Your task to perform on an android device: Clear all items from cart on newegg. Search for usb-c to usb-b on newegg, select the first entry, and add it to the cart. Image 0: 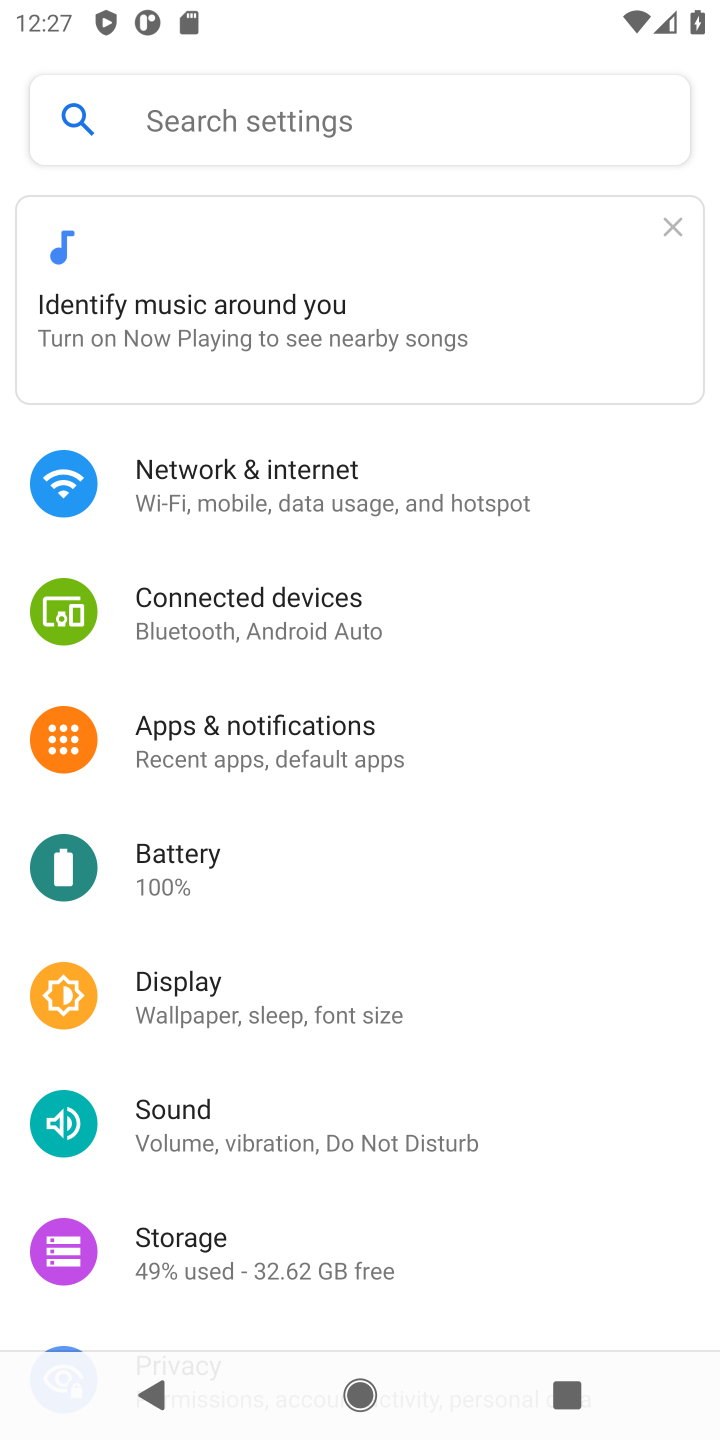
Step 0: press home button
Your task to perform on an android device: Clear all items from cart on newegg. Search for usb-c to usb-b on newegg, select the first entry, and add it to the cart. Image 1: 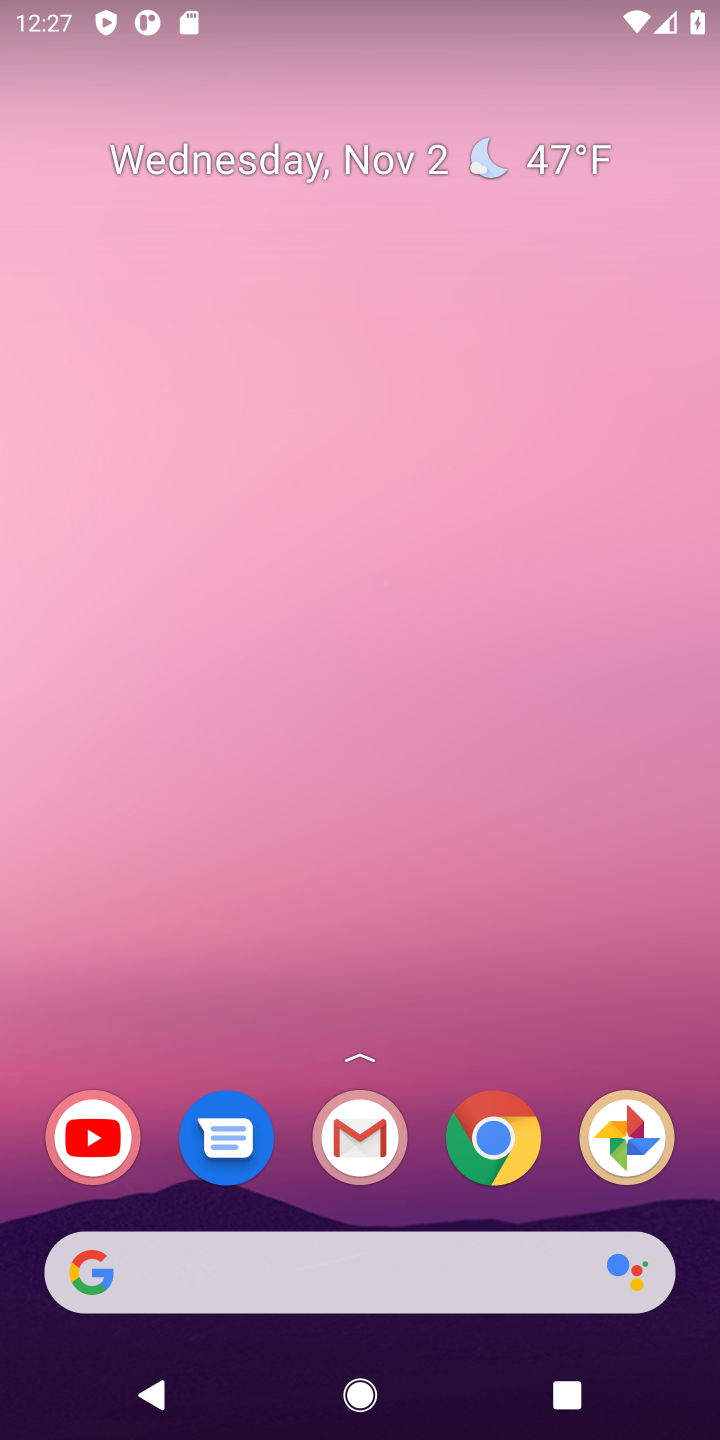
Step 1: drag from (458, 1350) to (423, 131)
Your task to perform on an android device: Clear all items from cart on newegg. Search for usb-c to usb-b on newegg, select the first entry, and add it to the cart. Image 2: 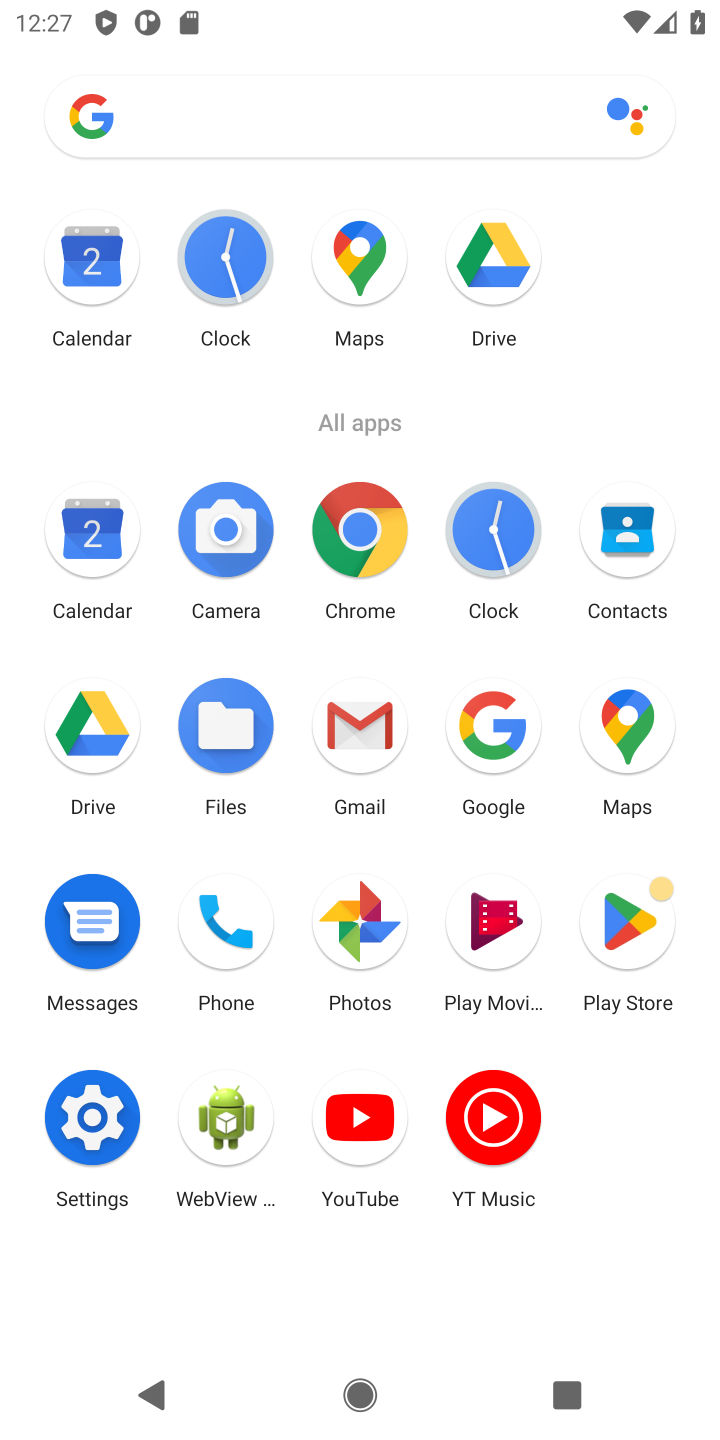
Step 2: click (375, 537)
Your task to perform on an android device: Clear all items from cart on newegg. Search for usb-c to usb-b on newegg, select the first entry, and add it to the cart. Image 3: 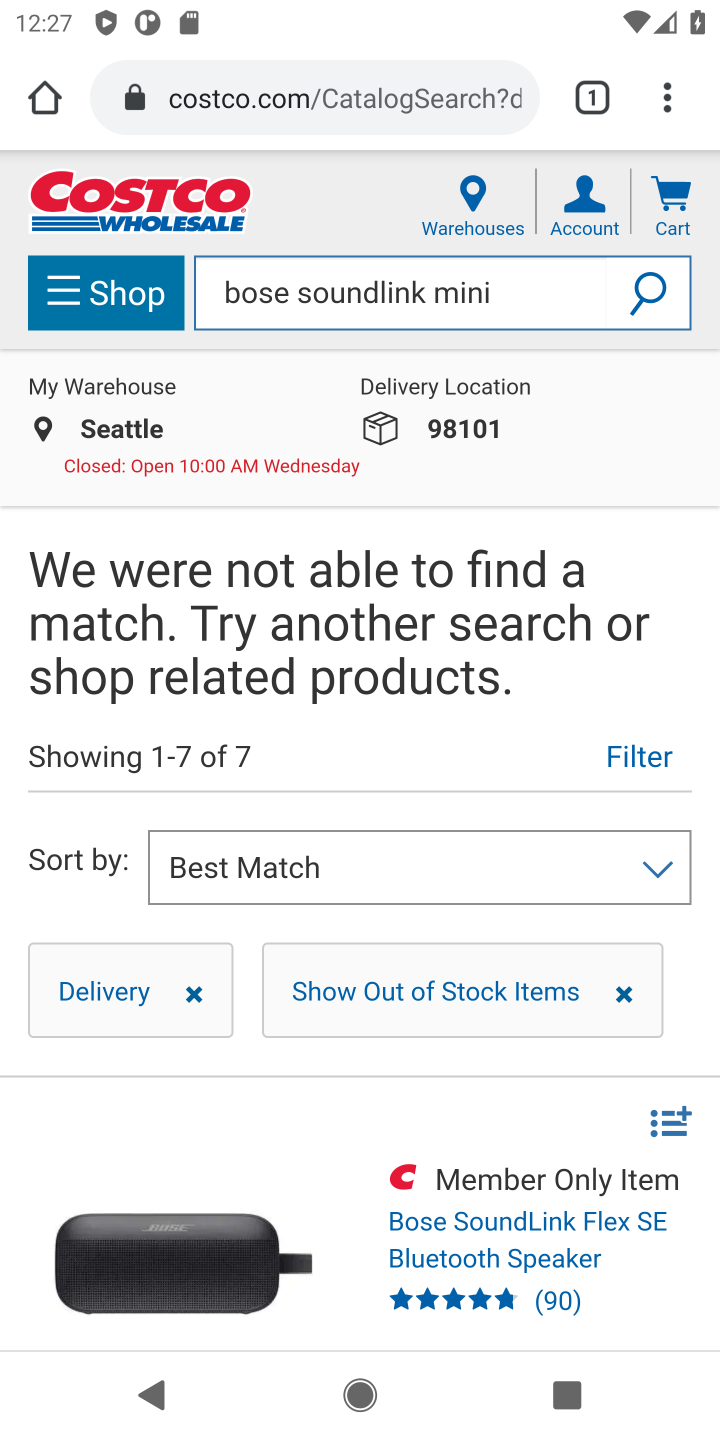
Step 3: click (326, 101)
Your task to perform on an android device: Clear all items from cart on newegg. Search for usb-c to usb-b on newegg, select the first entry, and add it to the cart. Image 4: 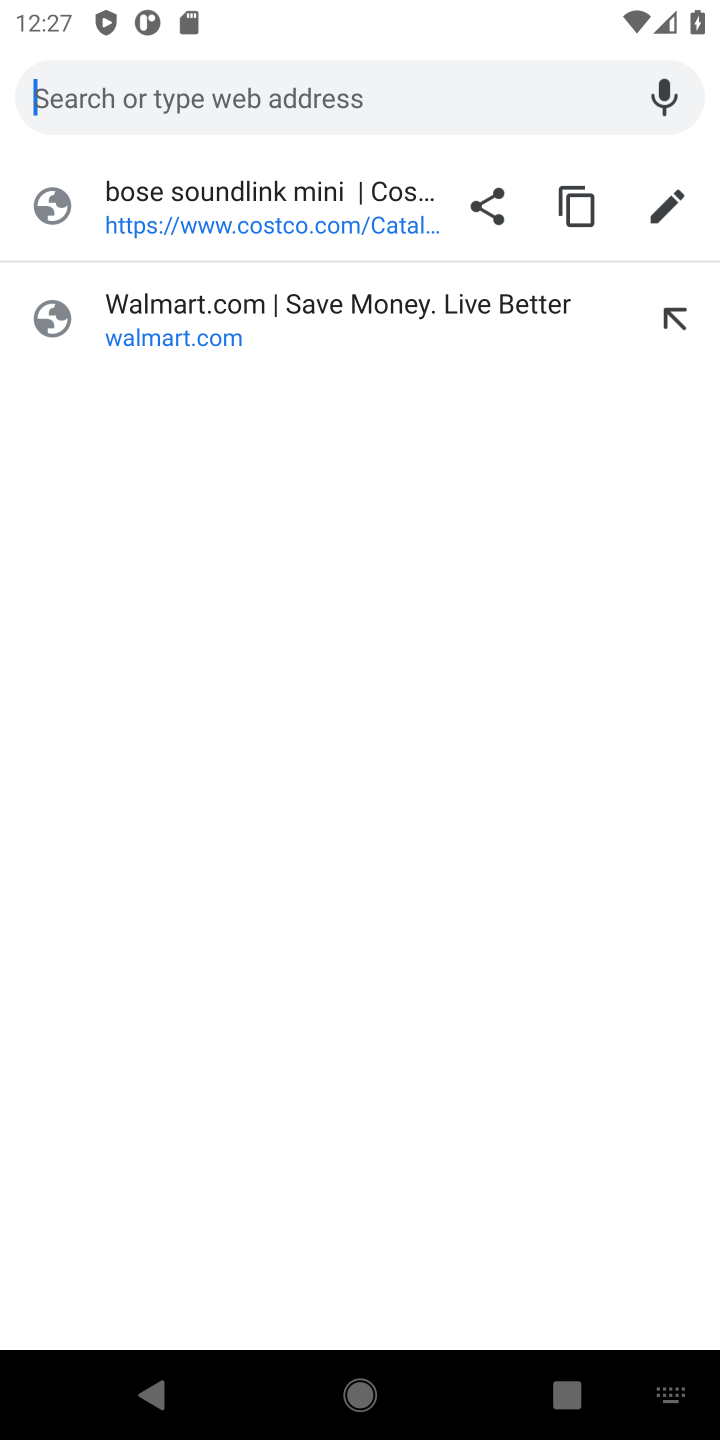
Step 4: type "newegg"
Your task to perform on an android device: Clear all items from cart on newegg. Search for usb-c to usb-b on newegg, select the first entry, and add it to the cart. Image 5: 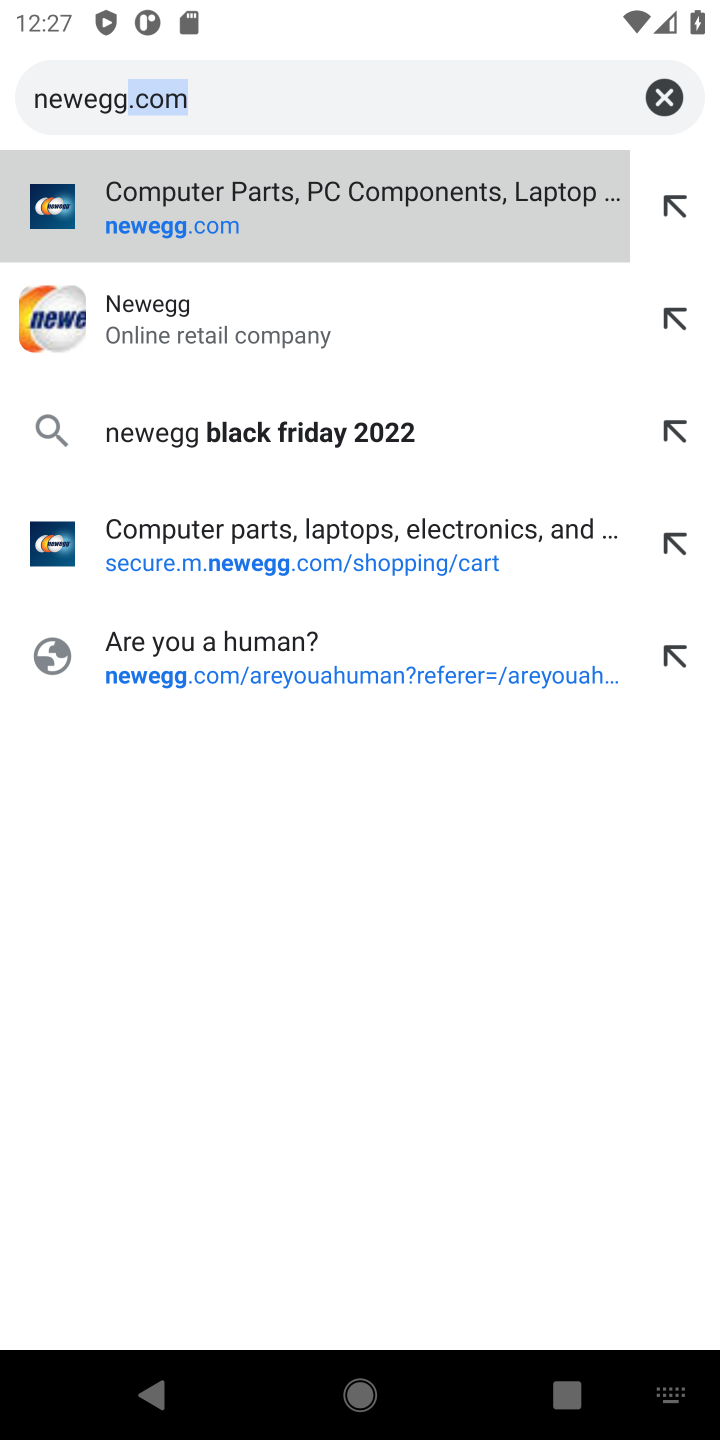
Step 5: click (131, 222)
Your task to perform on an android device: Clear all items from cart on newegg. Search for usb-c to usb-b on newegg, select the first entry, and add it to the cart. Image 6: 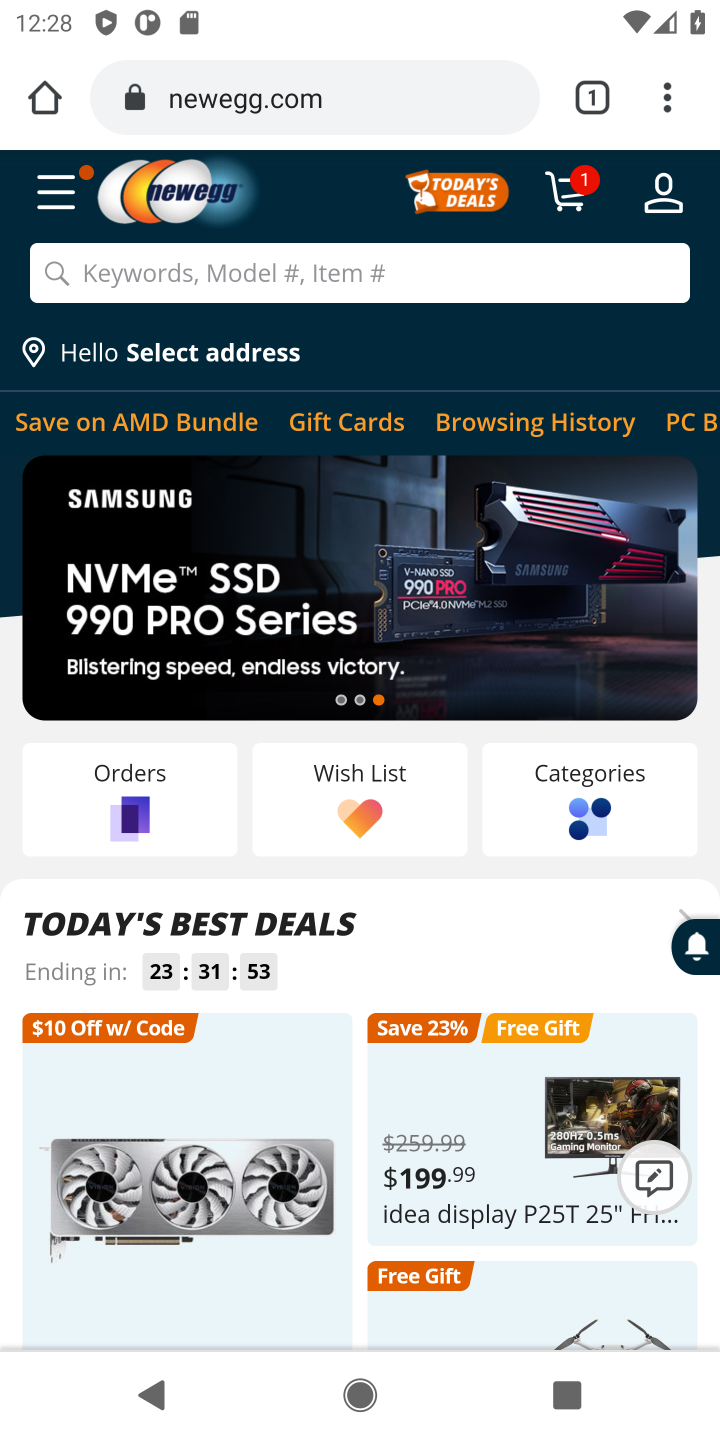
Step 6: click (322, 255)
Your task to perform on an android device: Clear all items from cart on newegg. Search for usb-c to usb-b on newegg, select the first entry, and add it to the cart. Image 7: 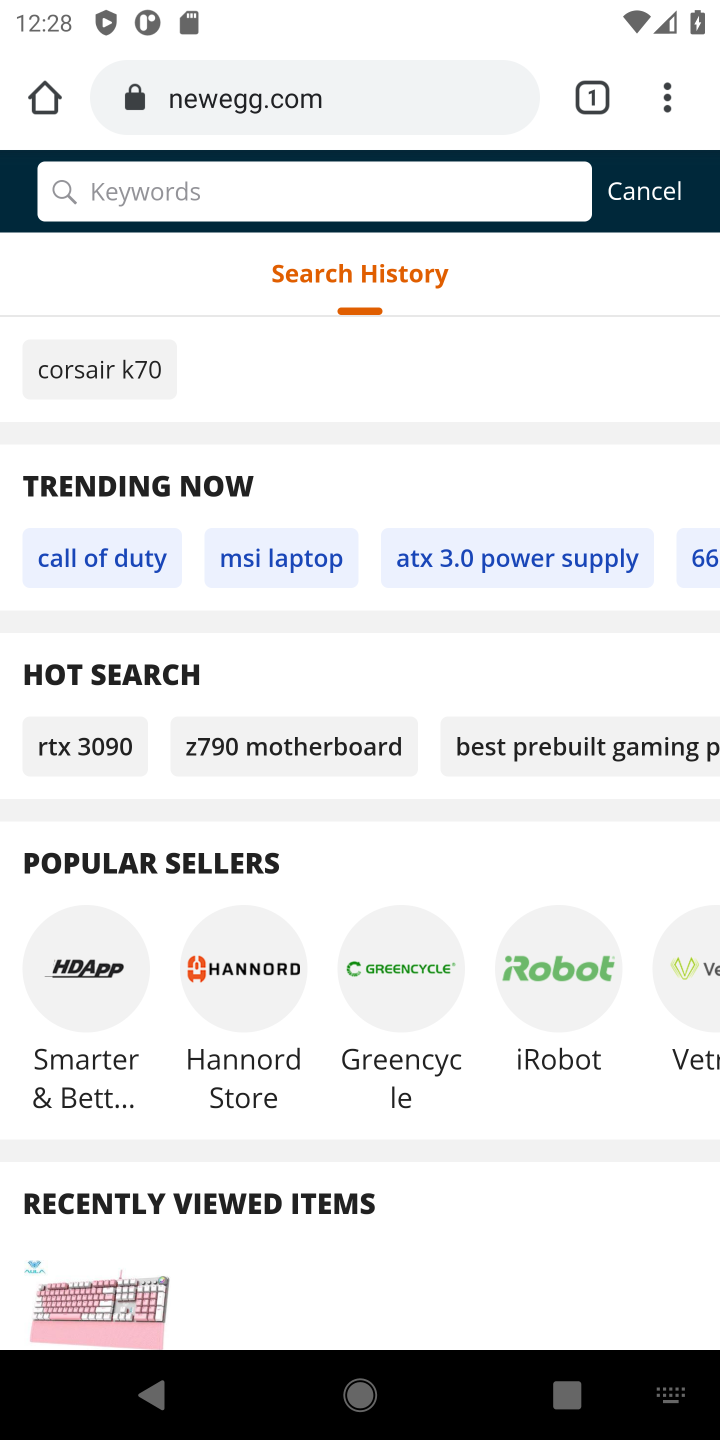
Step 7: click (619, 198)
Your task to perform on an android device: Clear all items from cart on newegg. Search for usb-c to usb-b on newegg, select the first entry, and add it to the cart. Image 8: 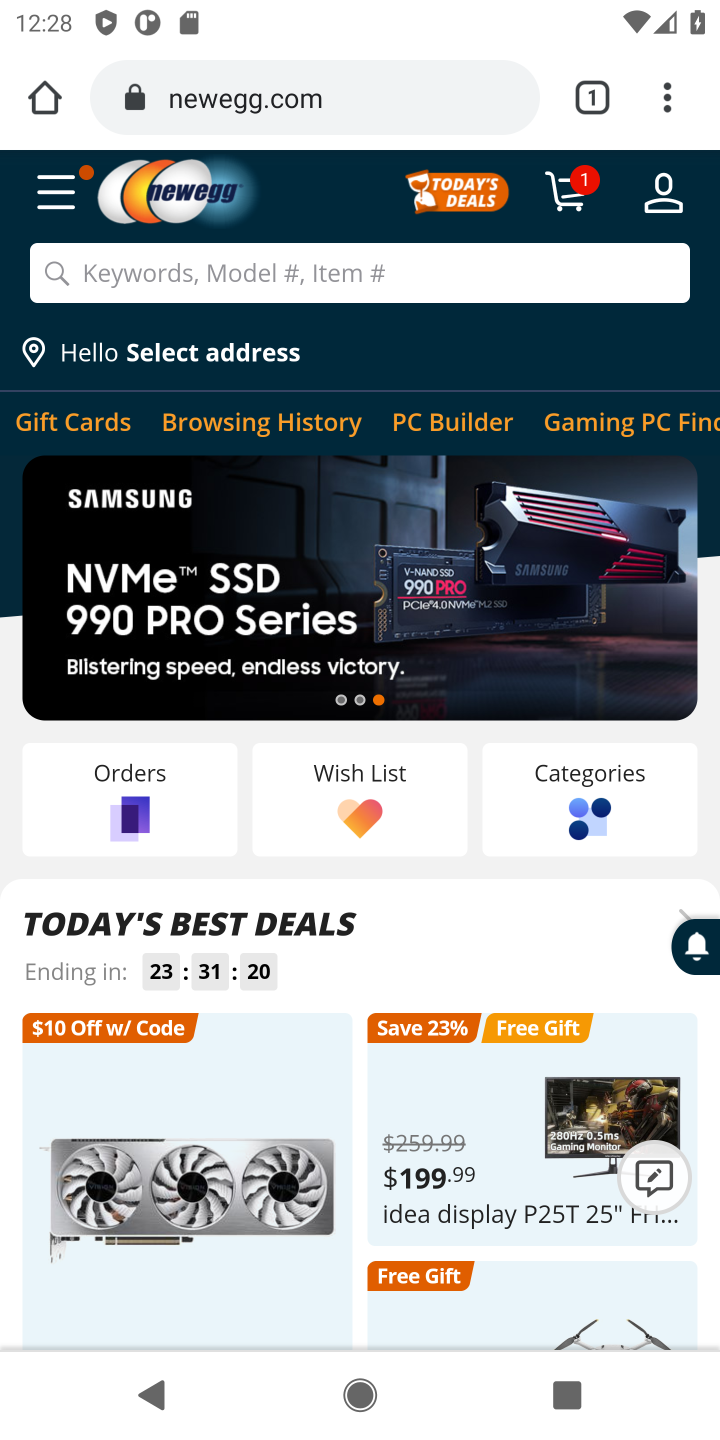
Step 8: click (581, 196)
Your task to perform on an android device: Clear all items from cart on newegg. Search for usb-c to usb-b on newegg, select the first entry, and add it to the cart. Image 9: 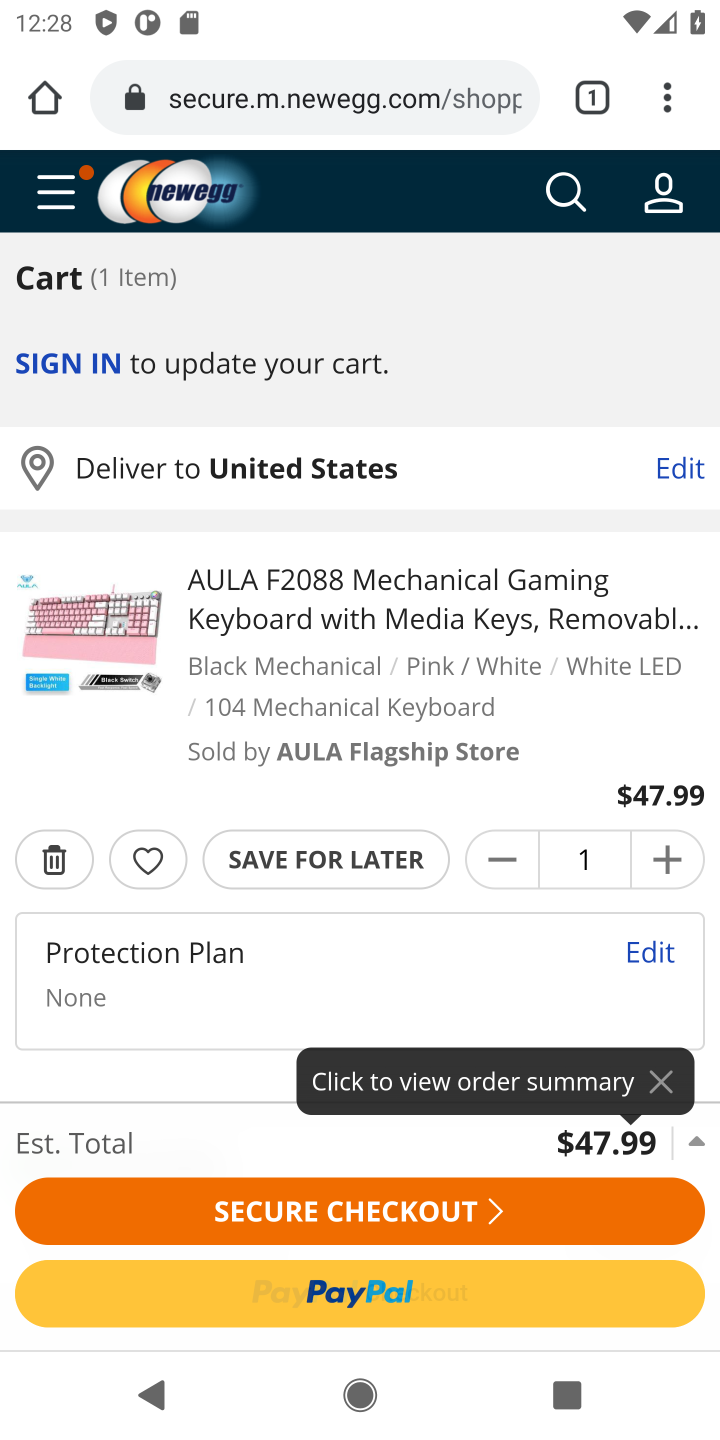
Step 9: drag from (470, 1140) to (505, 400)
Your task to perform on an android device: Clear all items from cart on newegg. Search for usb-c to usb-b on newegg, select the first entry, and add it to the cart. Image 10: 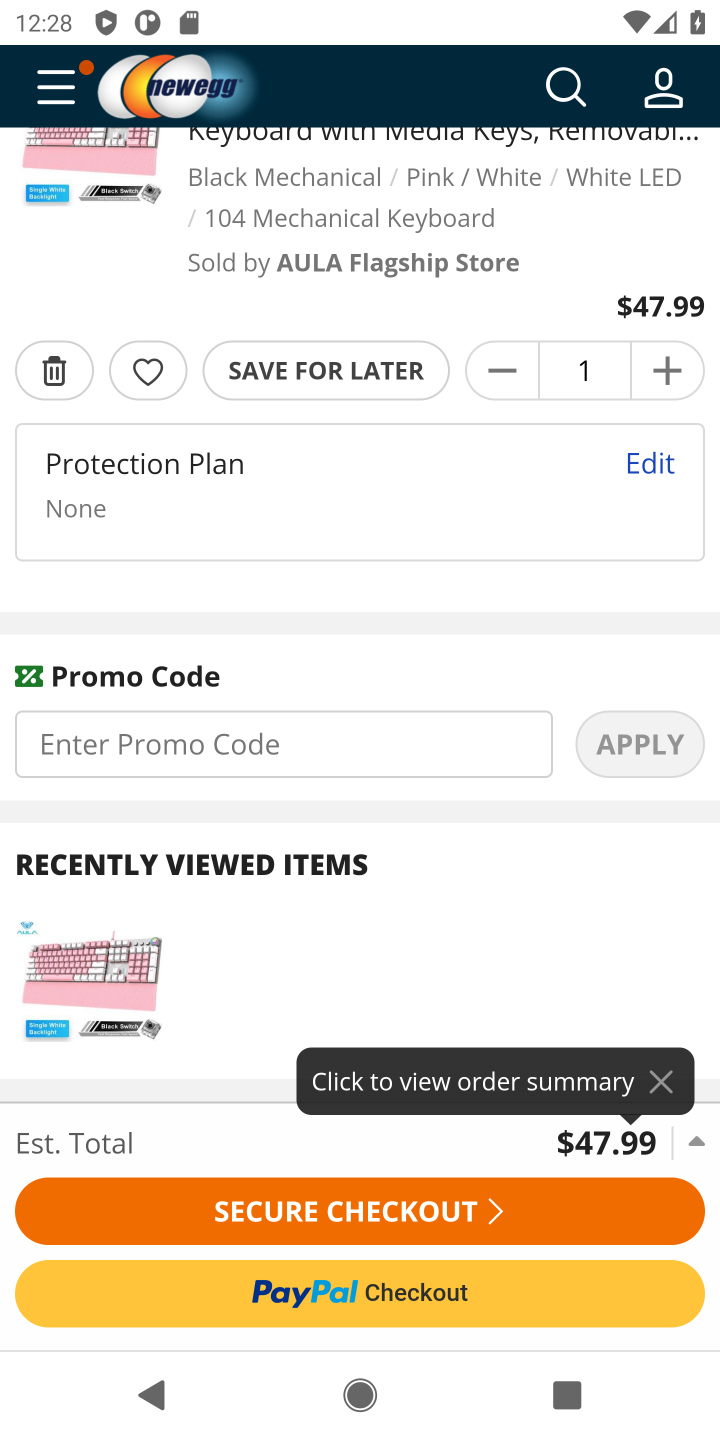
Step 10: drag from (550, 893) to (535, 449)
Your task to perform on an android device: Clear all items from cart on newegg. Search for usb-c to usb-b on newegg, select the first entry, and add it to the cart. Image 11: 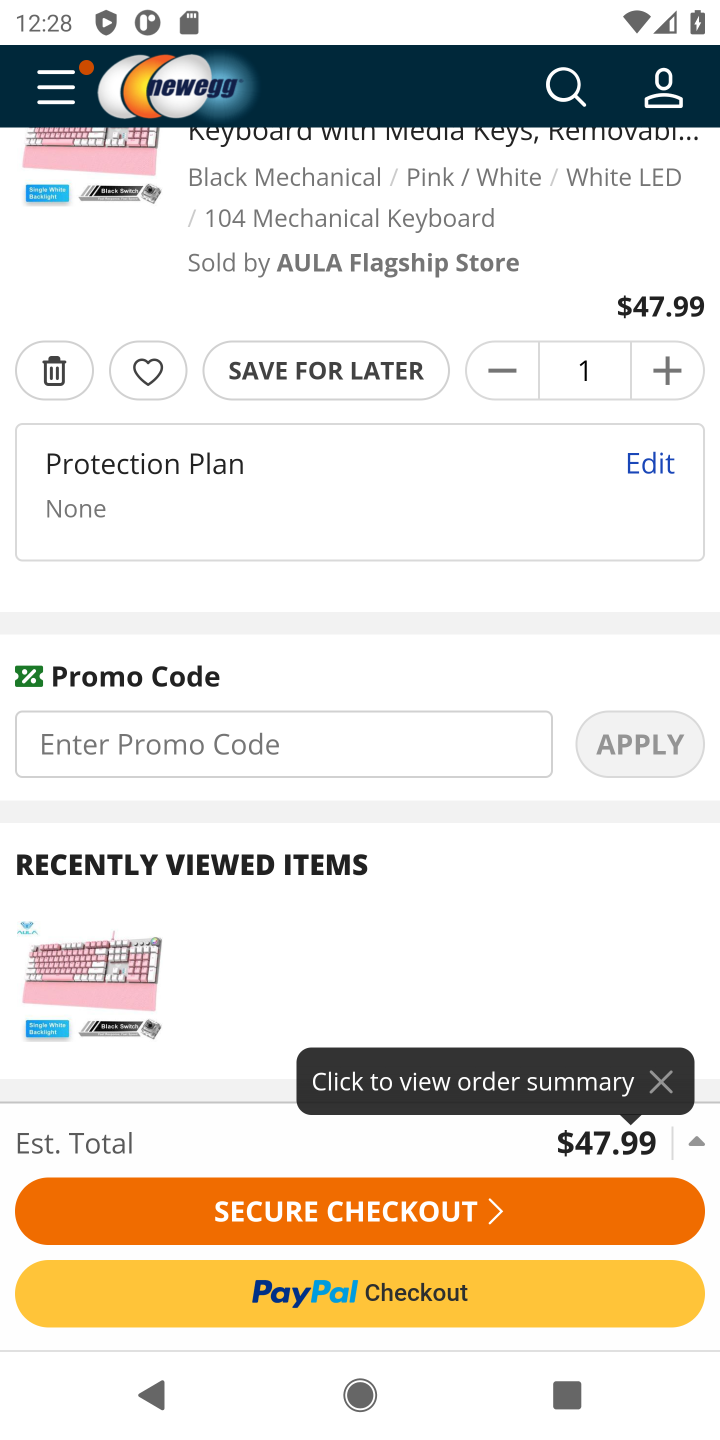
Step 11: click (51, 369)
Your task to perform on an android device: Clear all items from cart on newegg. Search for usb-c to usb-b on newegg, select the first entry, and add it to the cart. Image 12: 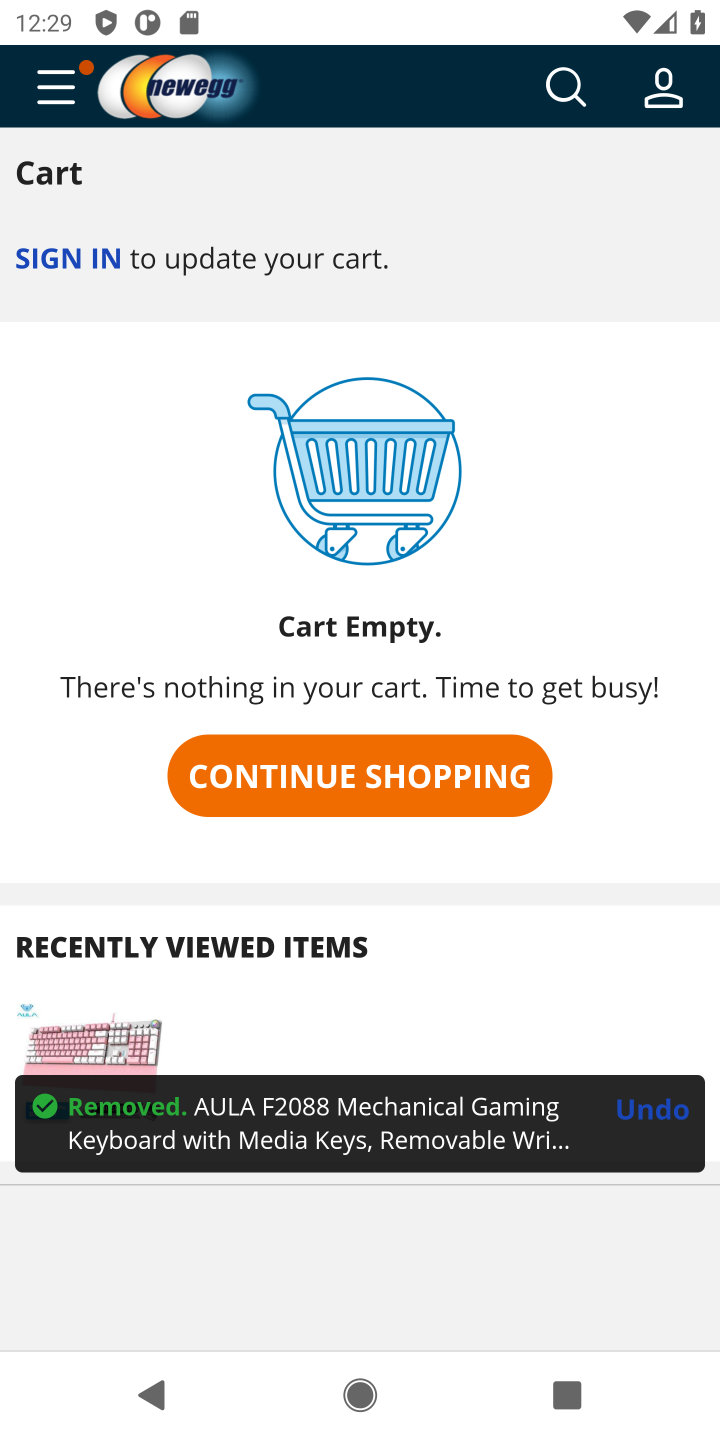
Step 12: drag from (551, 923) to (562, 445)
Your task to perform on an android device: Clear all items from cart on newegg. Search for usb-c to usb-b on newegg, select the first entry, and add it to the cart. Image 13: 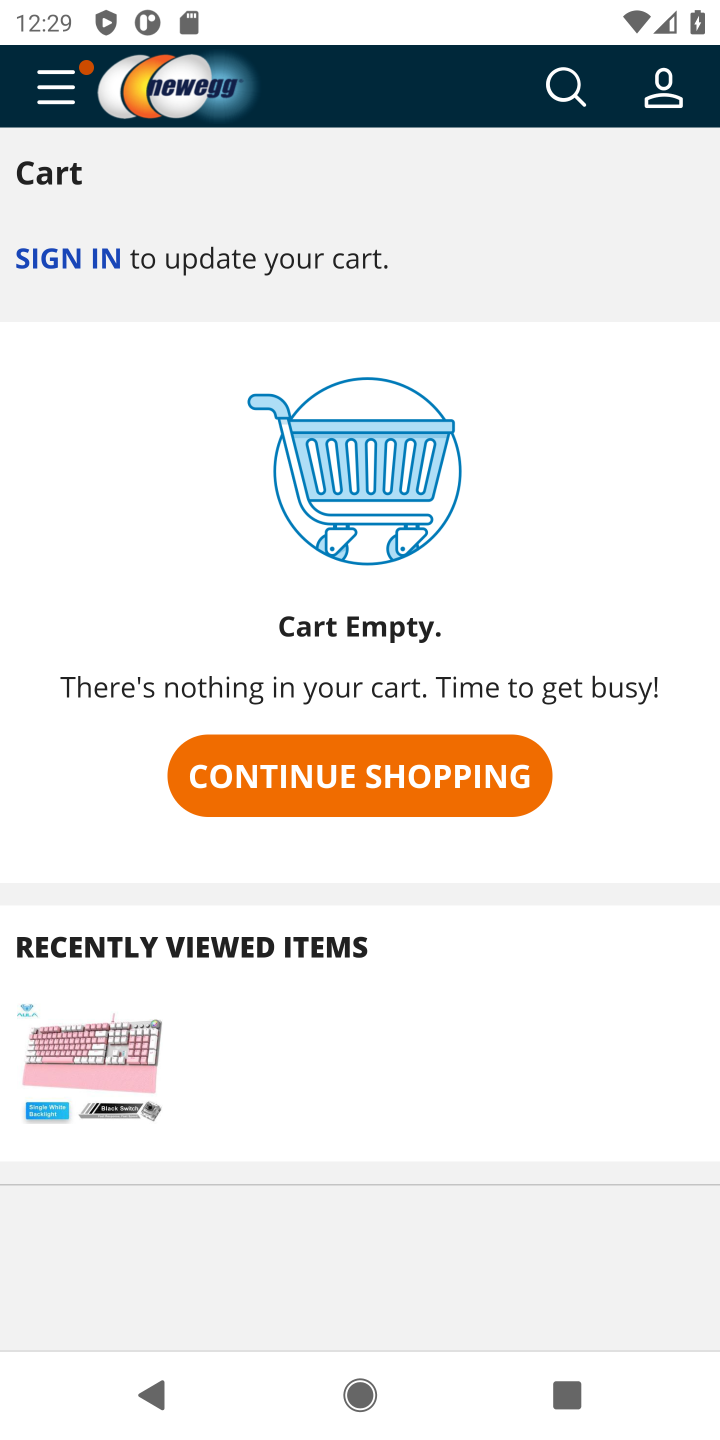
Step 13: click (557, 87)
Your task to perform on an android device: Clear all items from cart on newegg. Search for usb-c to usb-b on newegg, select the first entry, and add it to the cart. Image 14: 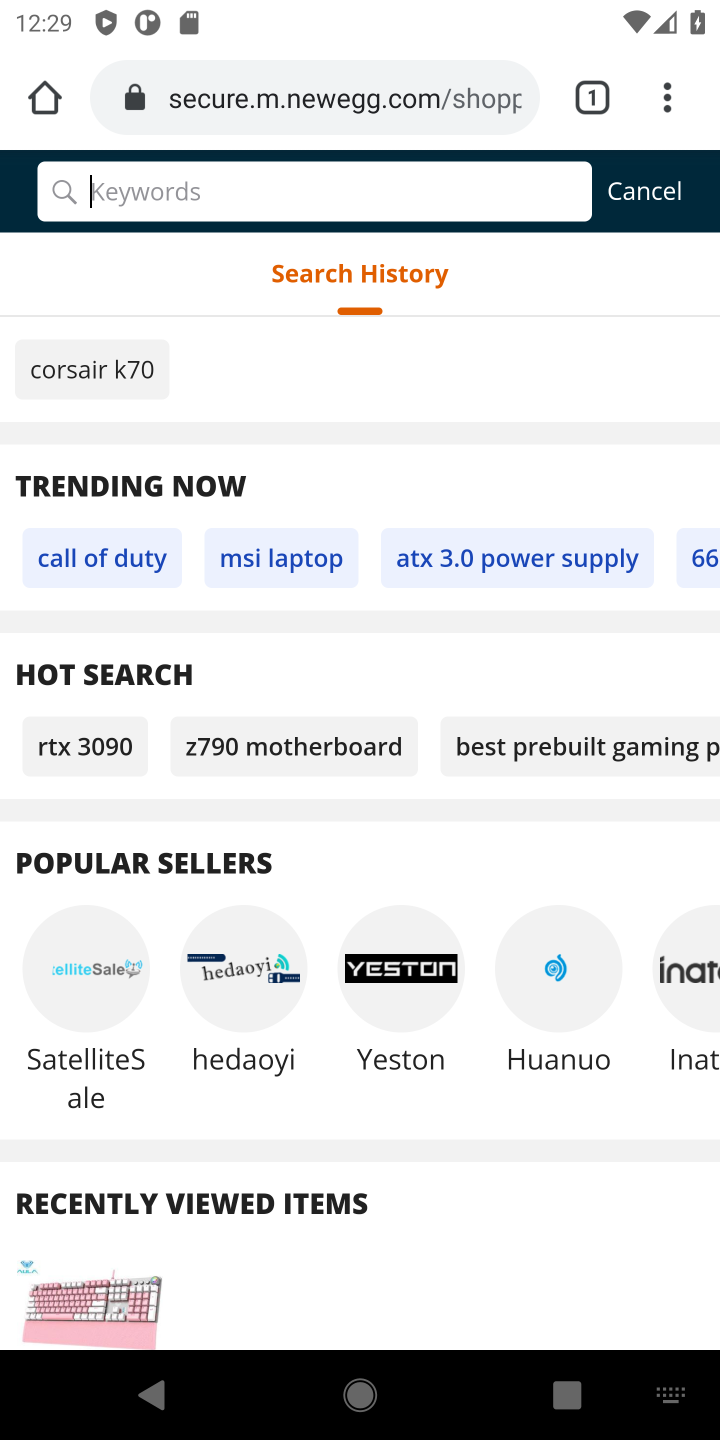
Step 14: type " usb-c to usb-b"
Your task to perform on an android device: Clear all items from cart on newegg. Search for usb-c to usb-b on newegg, select the first entry, and add it to the cart. Image 15: 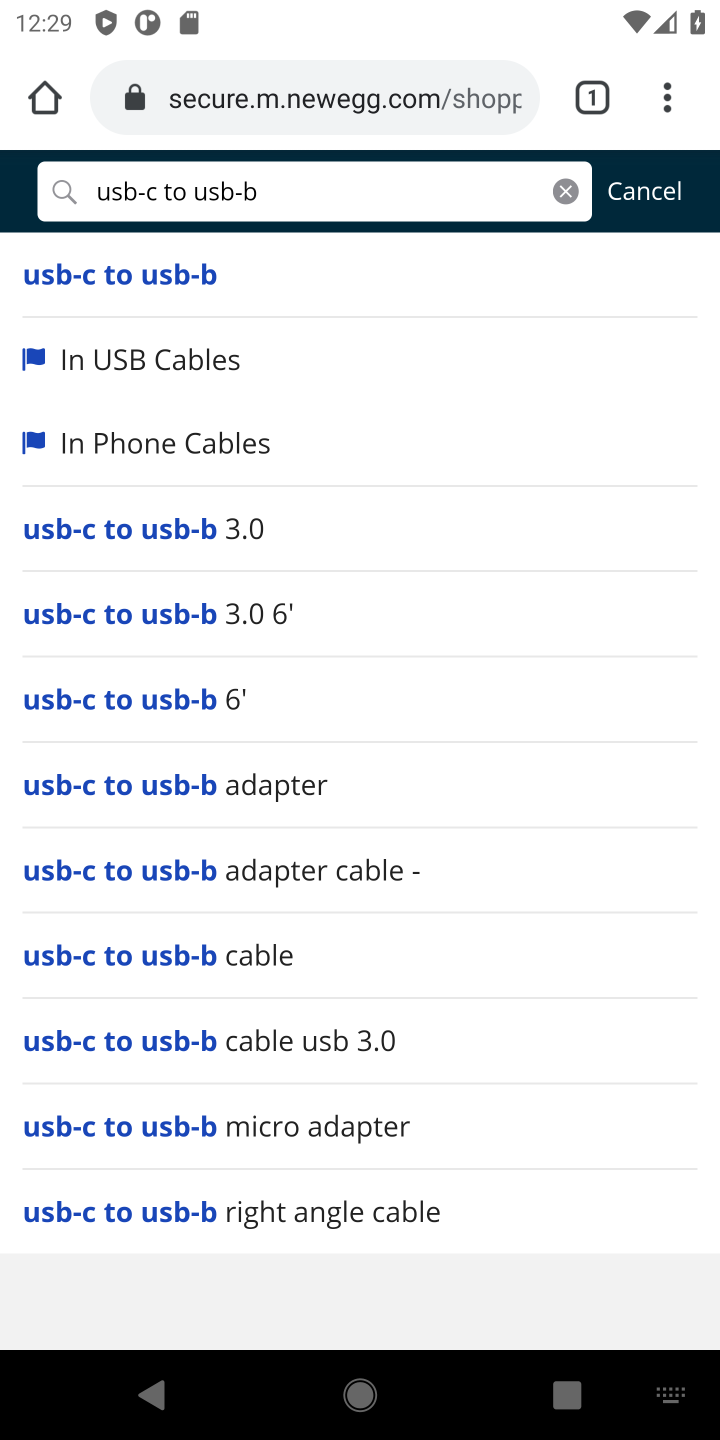
Step 15: click (103, 277)
Your task to perform on an android device: Clear all items from cart on newegg. Search for usb-c to usb-b on newegg, select the first entry, and add it to the cart. Image 16: 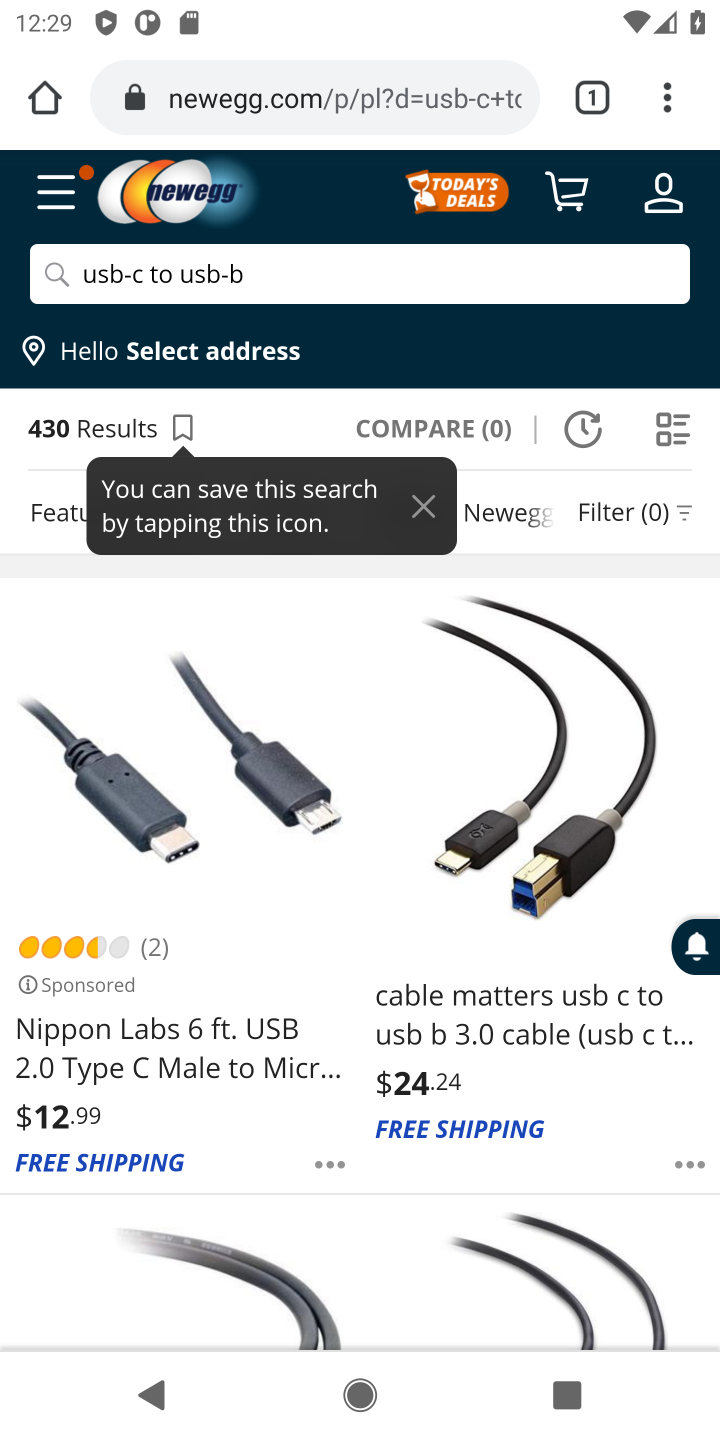
Step 16: click (173, 823)
Your task to perform on an android device: Clear all items from cart on newegg. Search for usb-c to usb-b on newegg, select the first entry, and add it to the cart. Image 17: 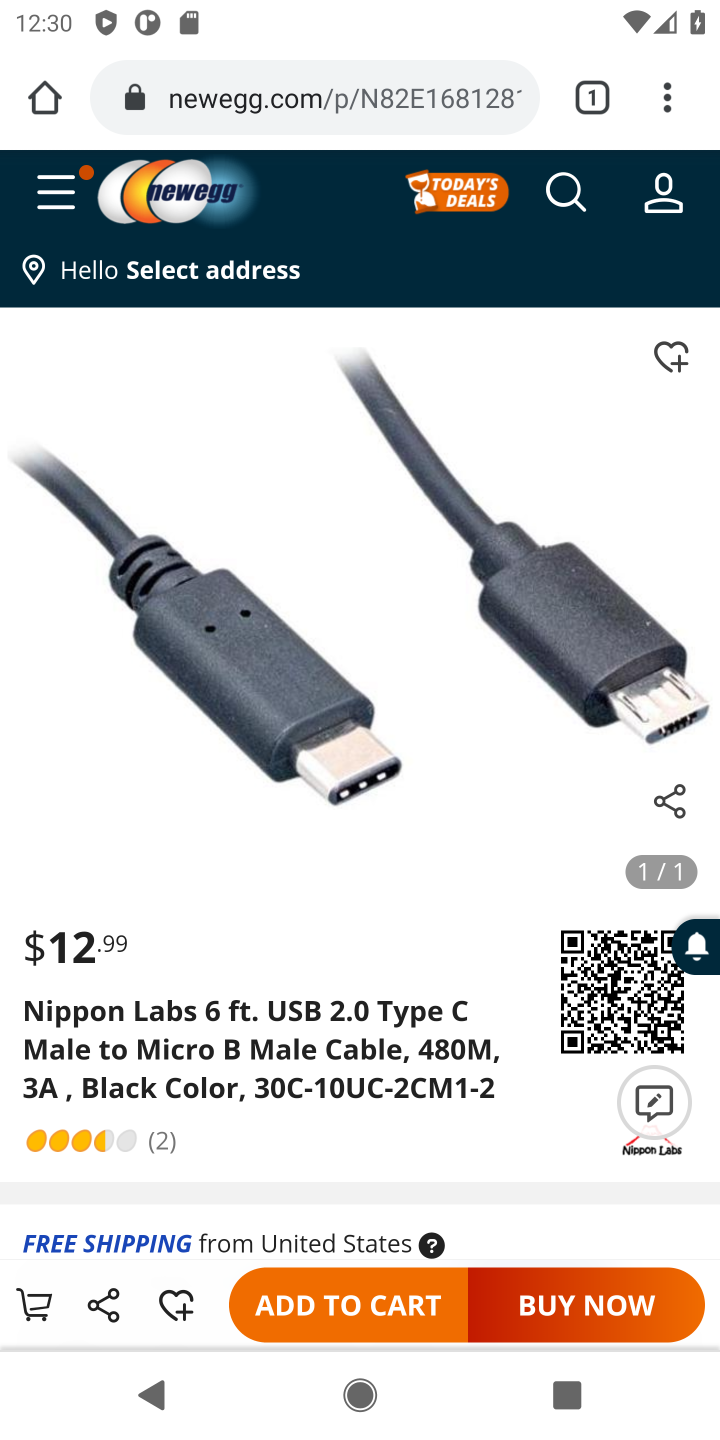
Step 17: click (355, 1284)
Your task to perform on an android device: Clear all items from cart on newegg. Search for usb-c to usb-b on newegg, select the first entry, and add it to the cart. Image 18: 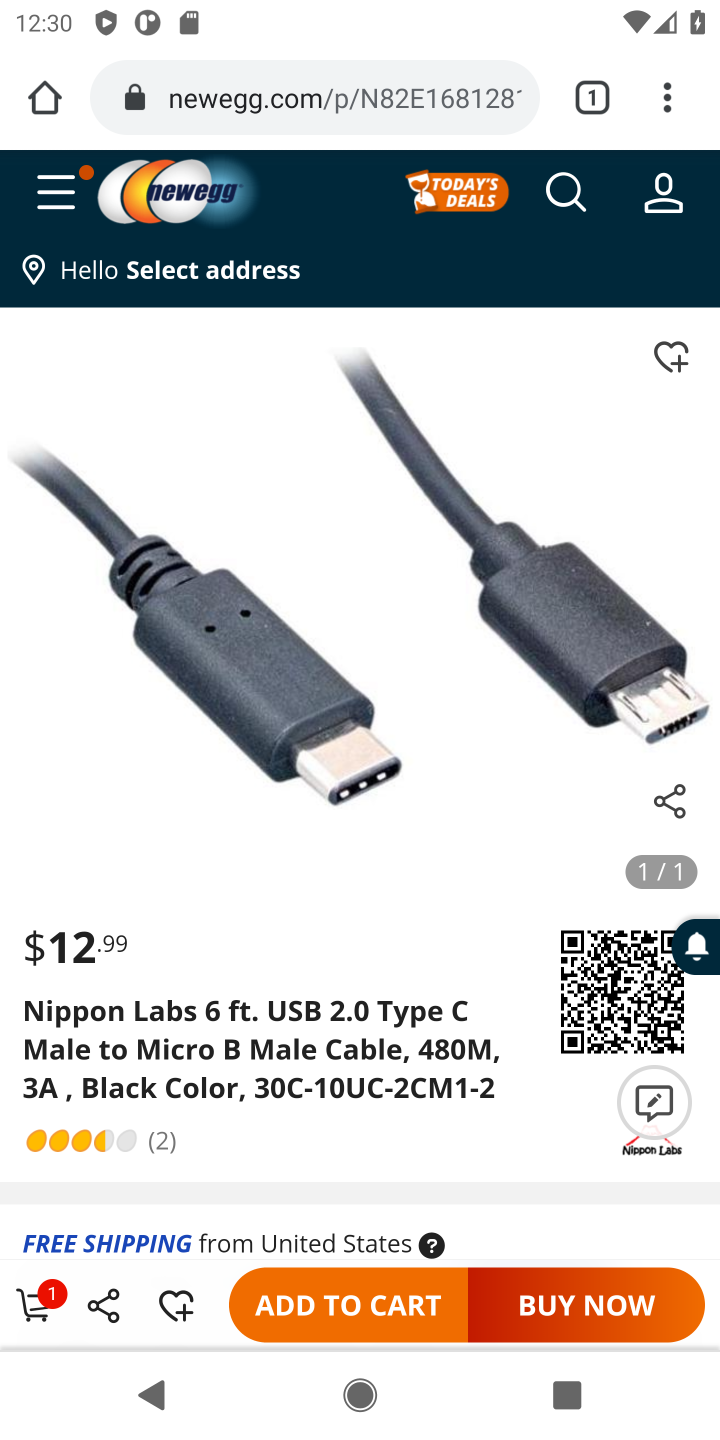
Step 18: click (356, 1296)
Your task to perform on an android device: Clear all items from cart on newegg. Search for usb-c to usb-b on newegg, select the first entry, and add it to the cart. Image 19: 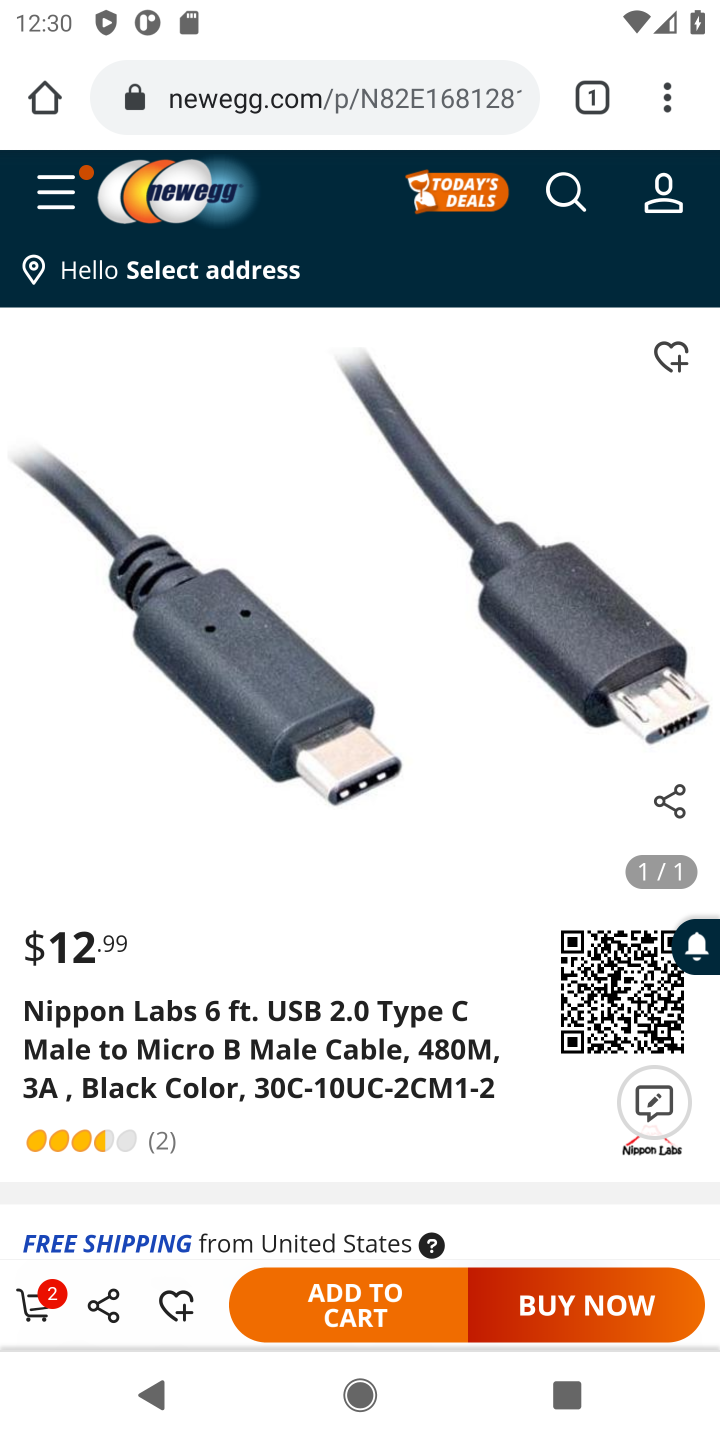
Step 19: task complete